Your task to perform on an android device: change timer sound Image 0: 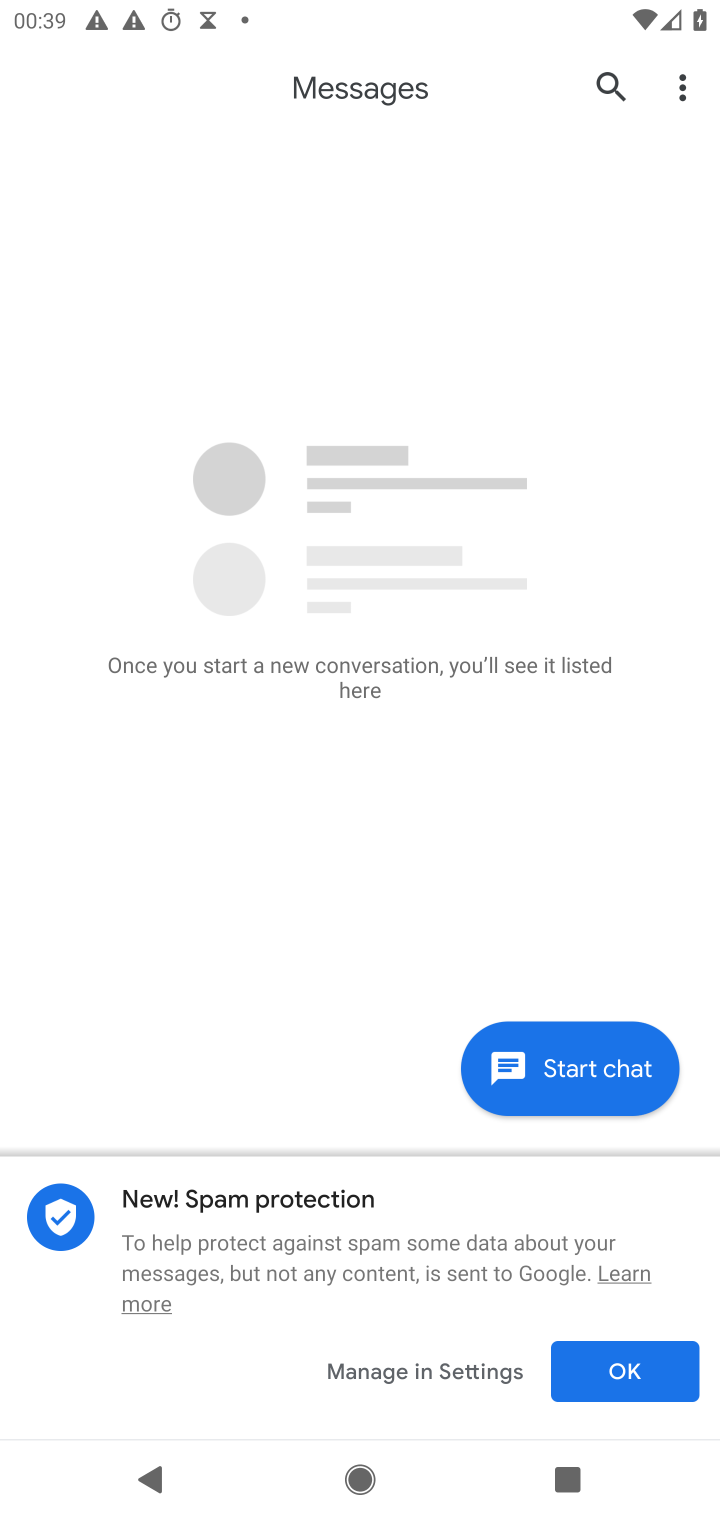
Step 0: press home button
Your task to perform on an android device: change timer sound Image 1: 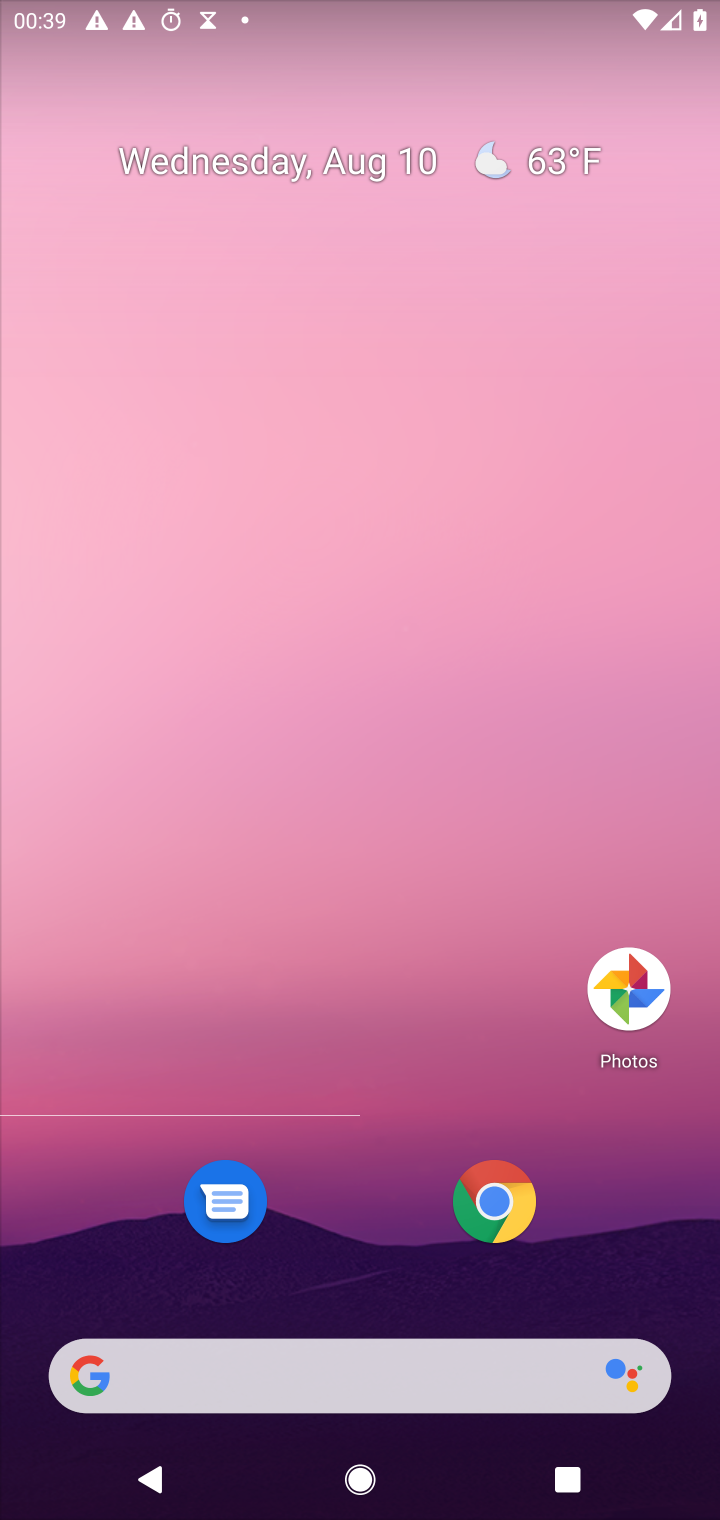
Step 1: drag from (370, 1127) to (333, 255)
Your task to perform on an android device: change timer sound Image 2: 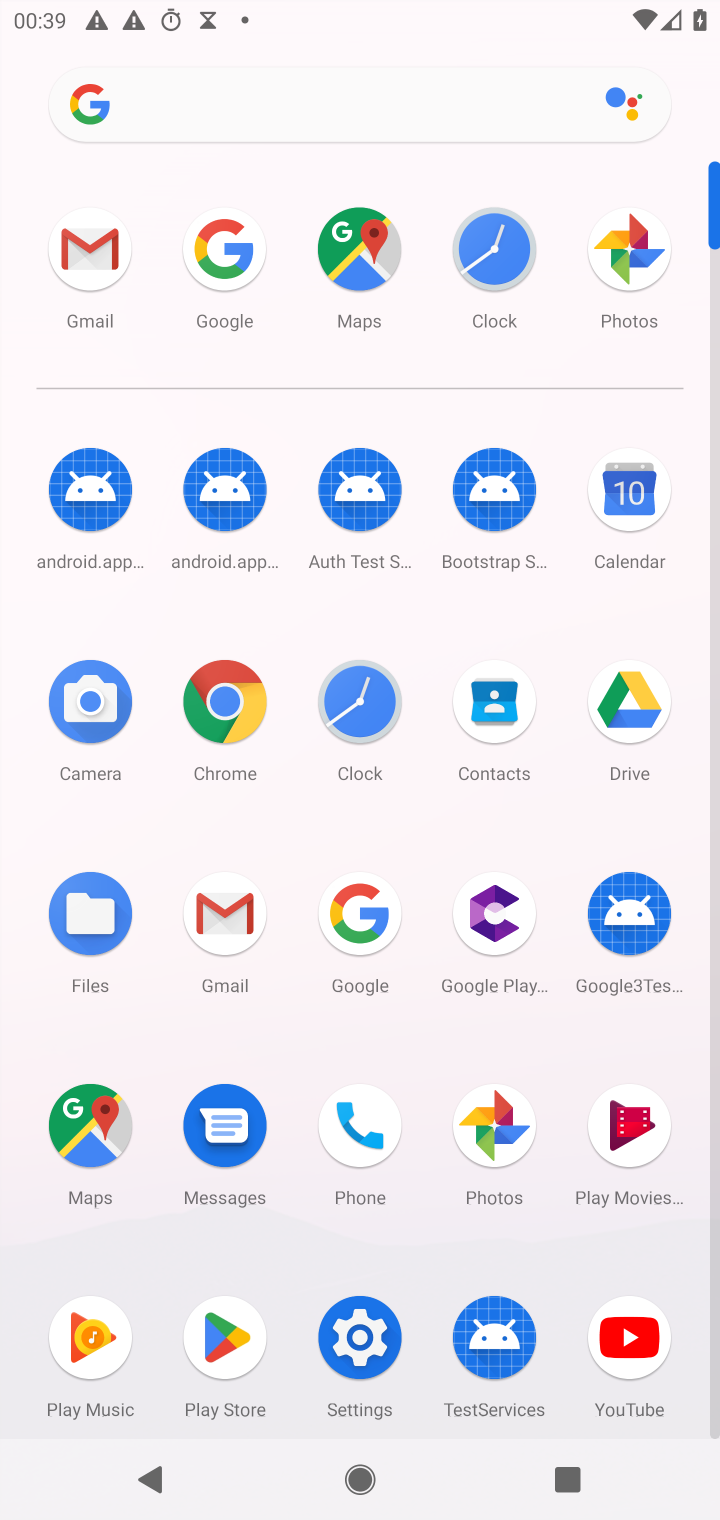
Step 2: click (346, 698)
Your task to perform on an android device: change timer sound Image 3: 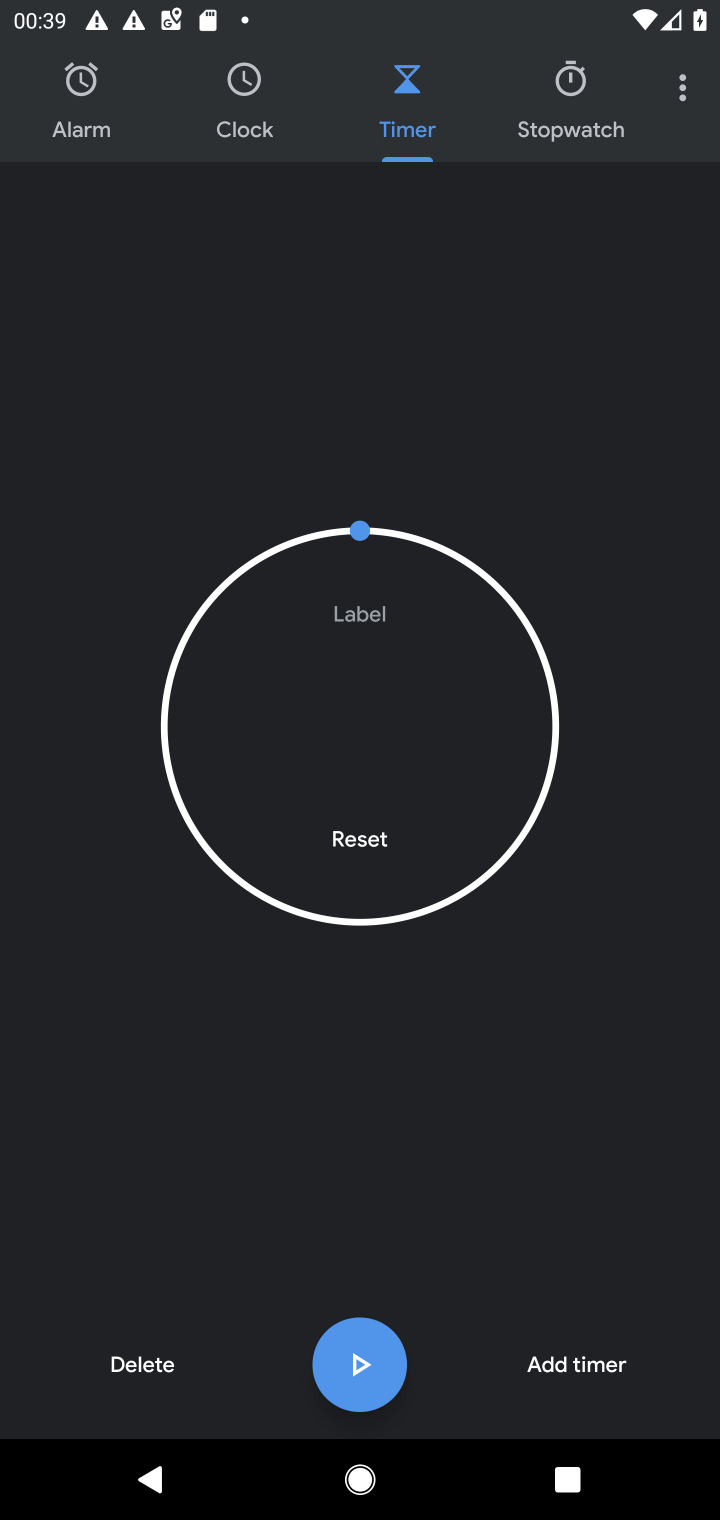
Step 3: click (674, 90)
Your task to perform on an android device: change timer sound Image 4: 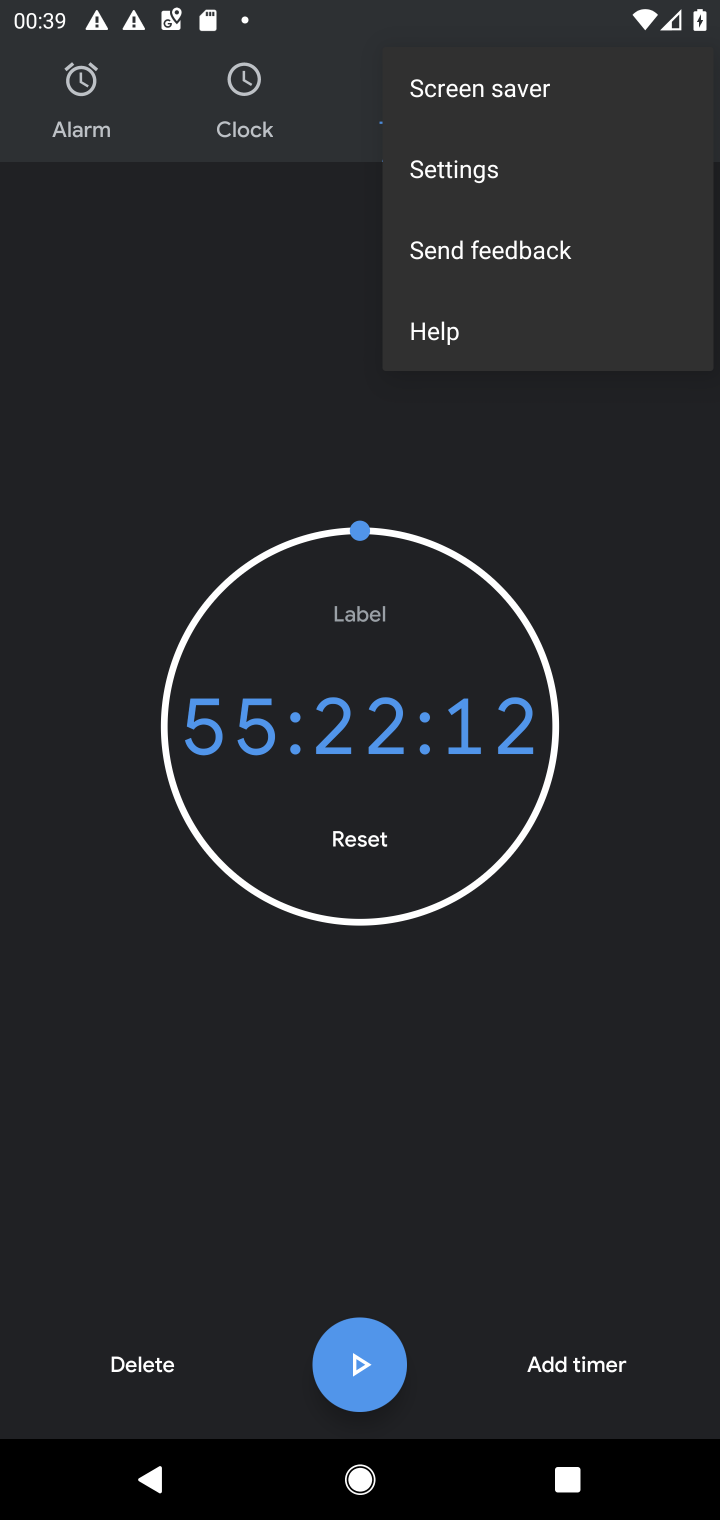
Step 4: click (458, 178)
Your task to perform on an android device: change timer sound Image 5: 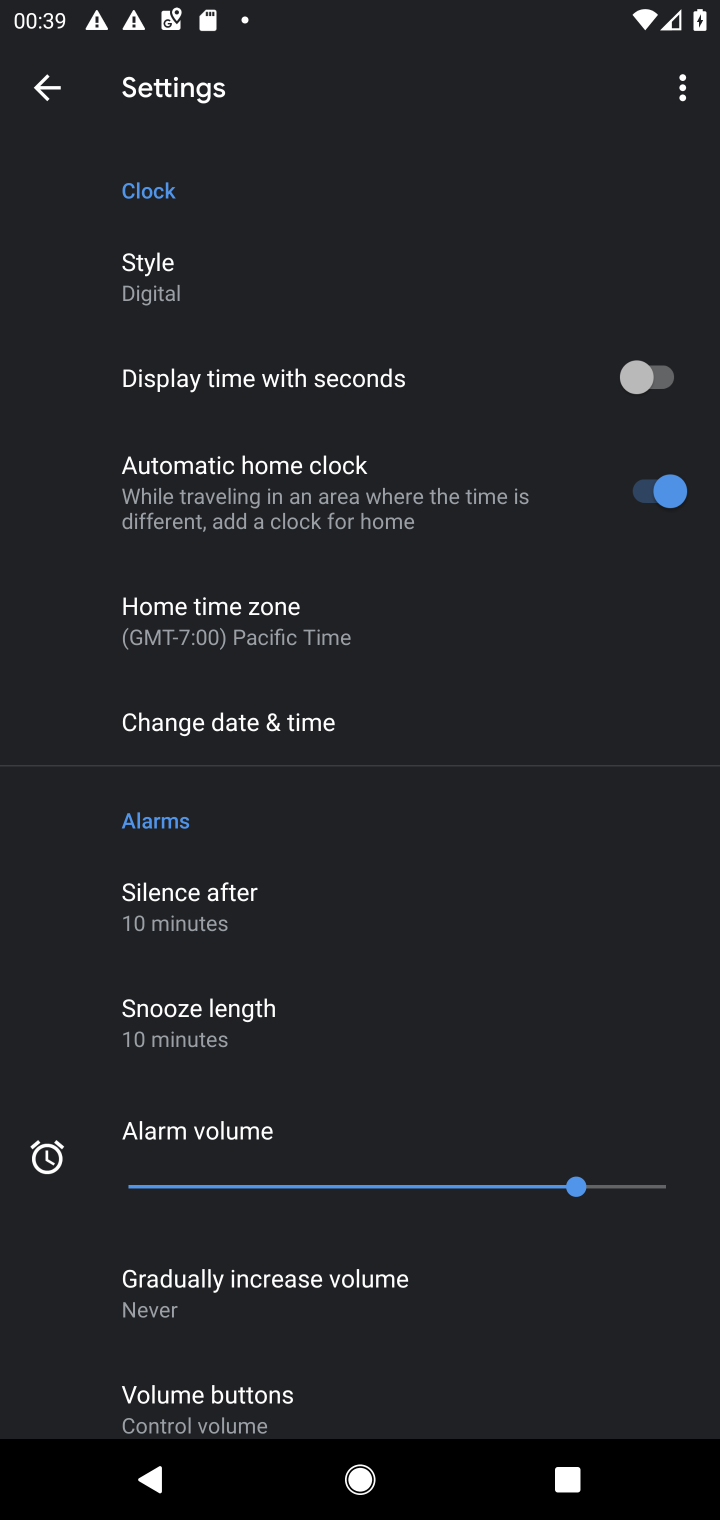
Step 5: drag from (374, 1079) to (350, 460)
Your task to perform on an android device: change timer sound Image 6: 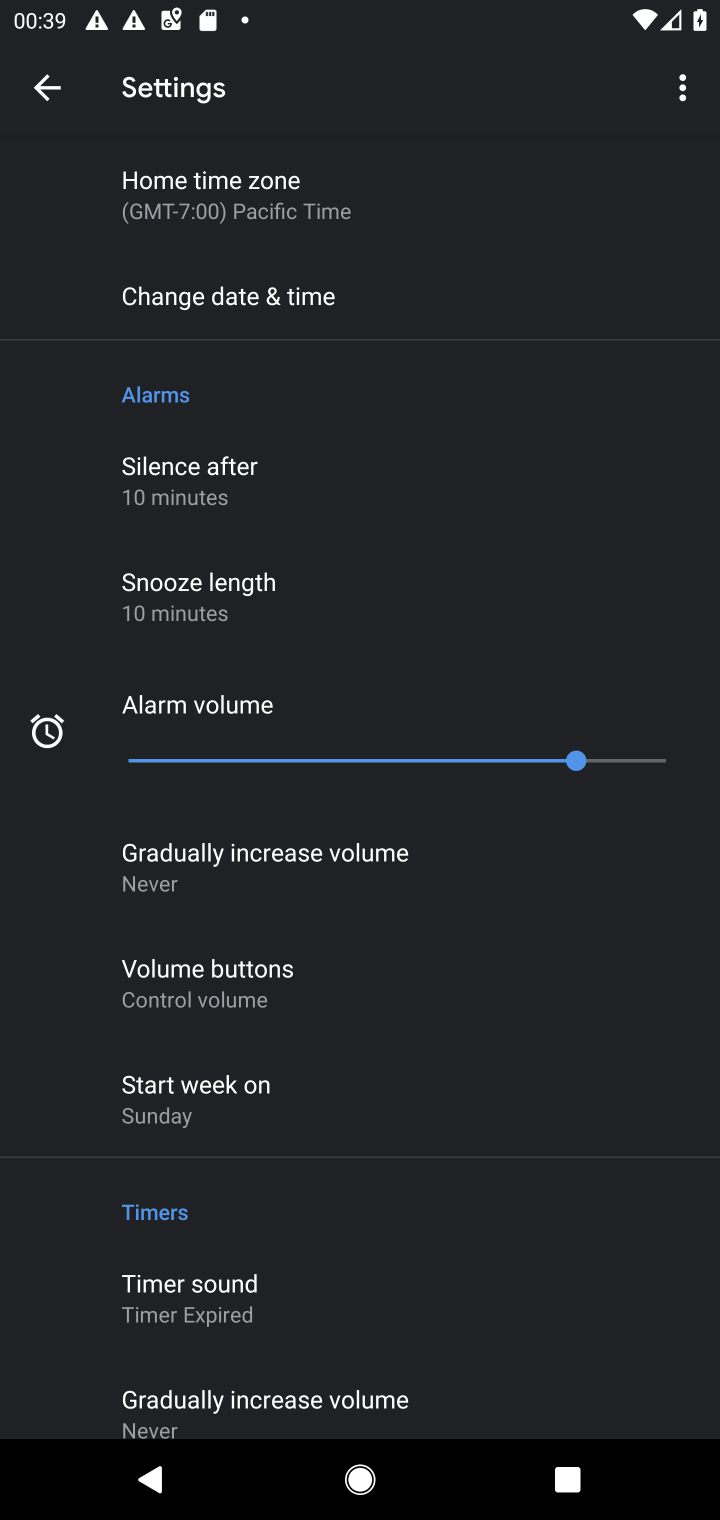
Step 6: click (251, 1305)
Your task to perform on an android device: change timer sound Image 7: 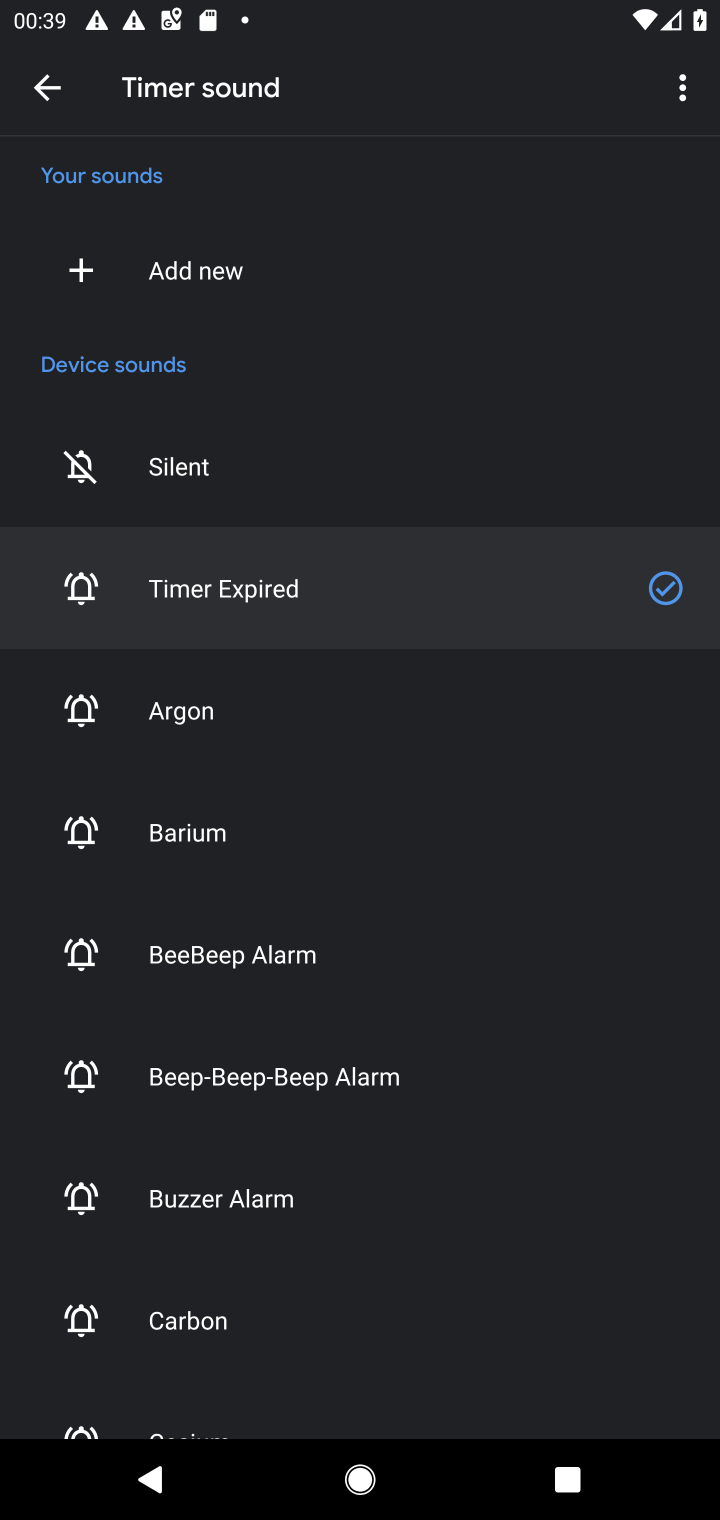
Step 7: click (197, 1190)
Your task to perform on an android device: change timer sound Image 8: 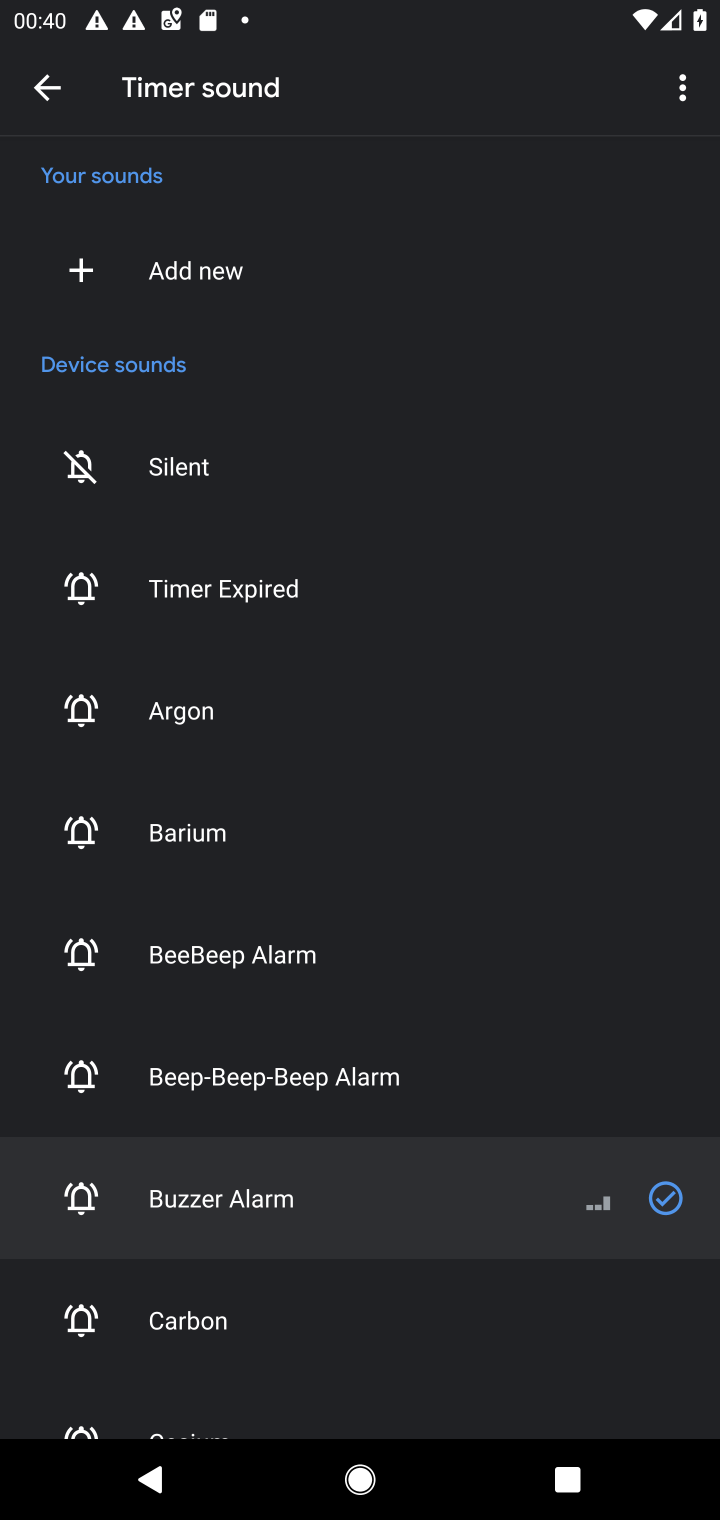
Step 8: task complete